Your task to perform on an android device: turn pop-ups on in chrome Image 0: 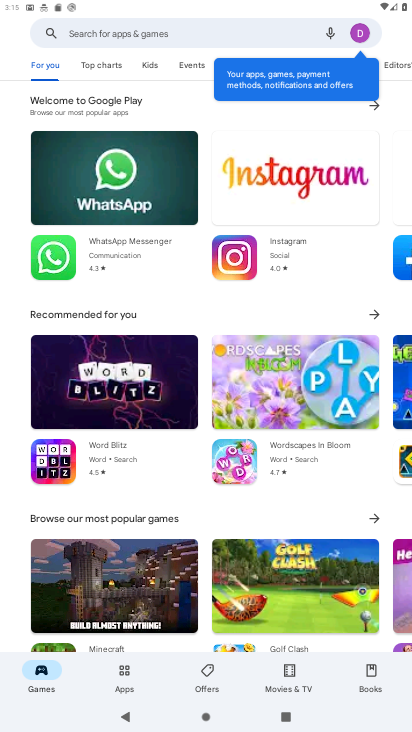
Step 0: press home button
Your task to perform on an android device: turn pop-ups on in chrome Image 1: 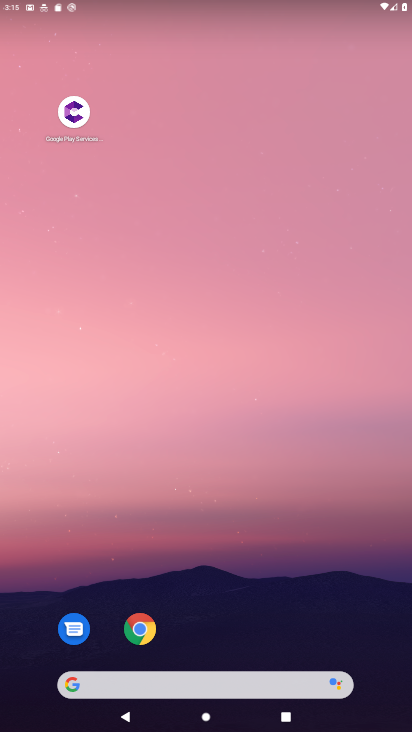
Step 1: click (142, 633)
Your task to perform on an android device: turn pop-ups on in chrome Image 2: 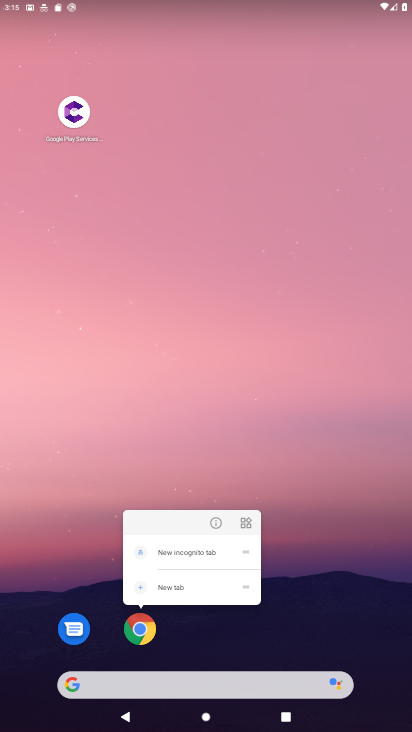
Step 2: click (136, 629)
Your task to perform on an android device: turn pop-ups on in chrome Image 3: 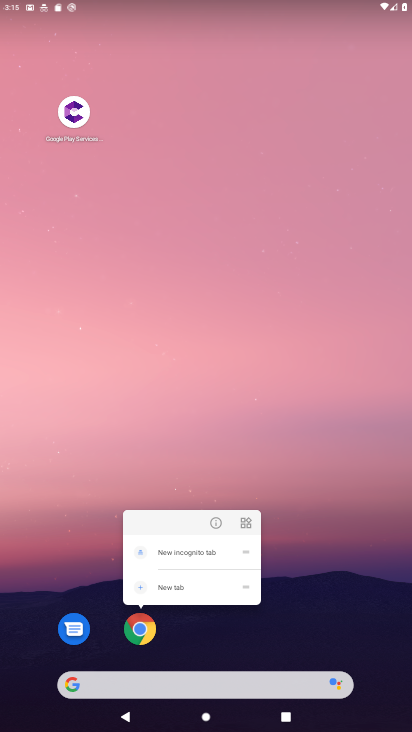
Step 3: click (136, 630)
Your task to perform on an android device: turn pop-ups on in chrome Image 4: 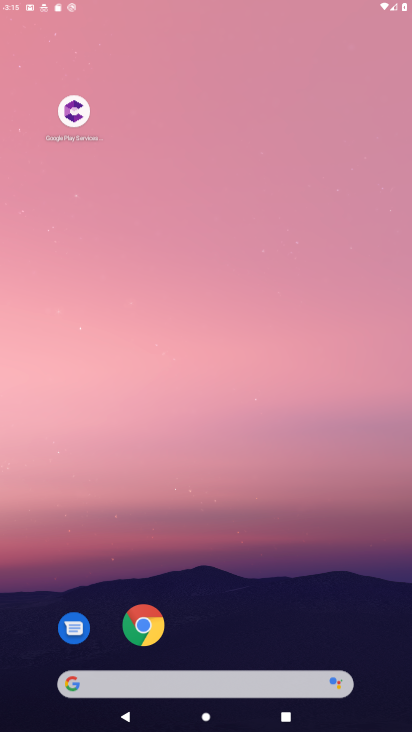
Step 4: click (136, 630)
Your task to perform on an android device: turn pop-ups on in chrome Image 5: 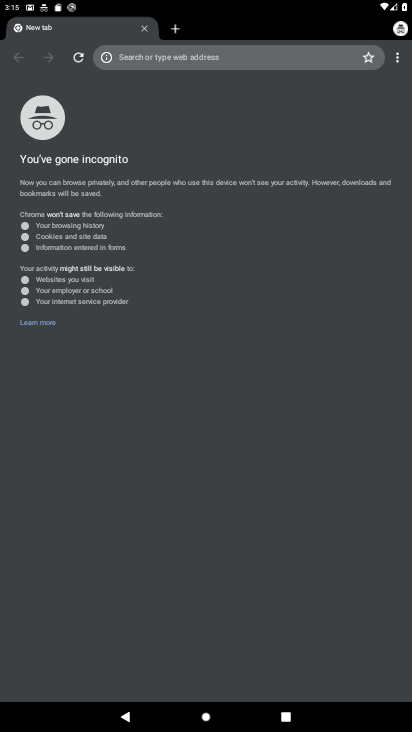
Step 5: click (398, 66)
Your task to perform on an android device: turn pop-ups on in chrome Image 6: 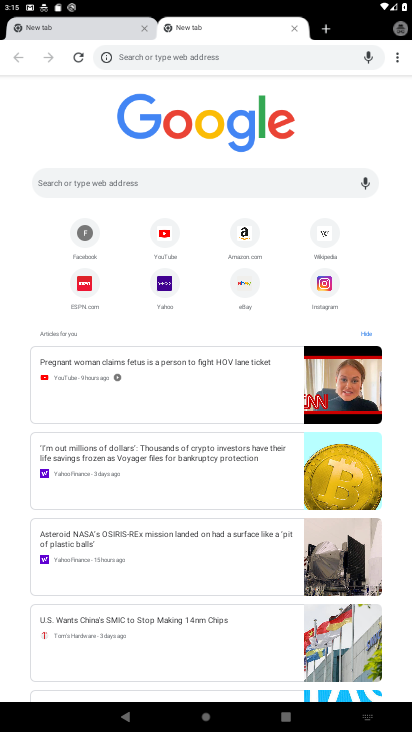
Step 6: click (396, 67)
Your task to perform on an android device: turn pop-ups on in chrome Image 7: 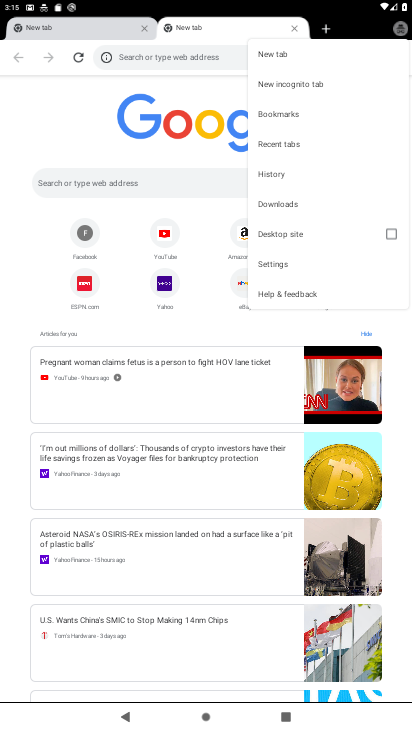
Step 7: click (316, 56)
Your task to perform on an android device: turn pop-ups on in chrome Image 8: 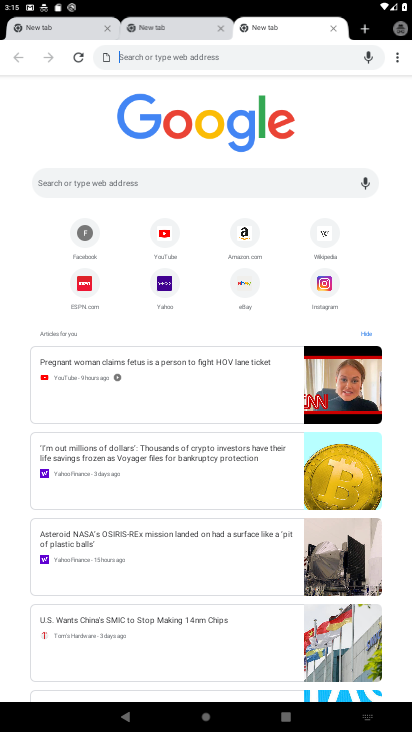
Step 8: drag from (400, 57) to (294, 268)
Your task to perform on an android device: turn pop-ups on in chrome Image 9: 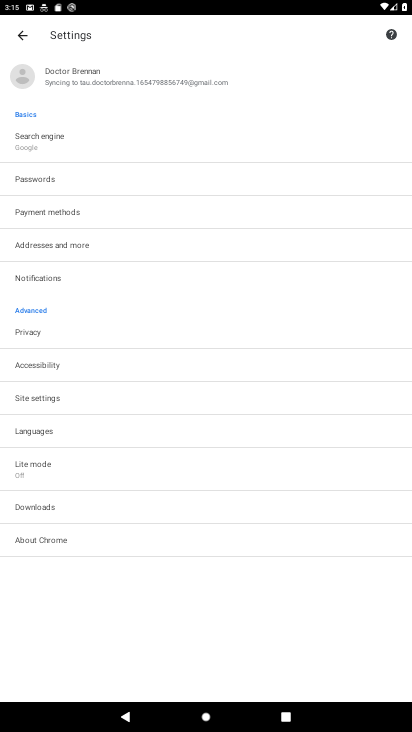
Step 9: click (49, 401)
Your task to perform on an android device: turn pop-ups on in chrome Image 10: 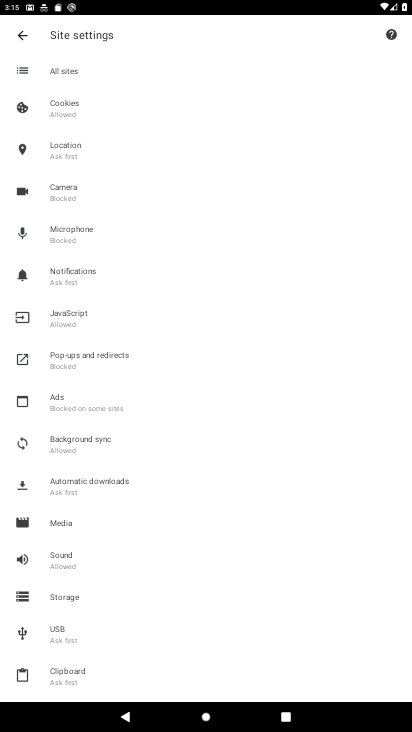
Step 10: click (72, 364)
Your task to perform on an android device: turn pop-ups on in chrome Image 11: 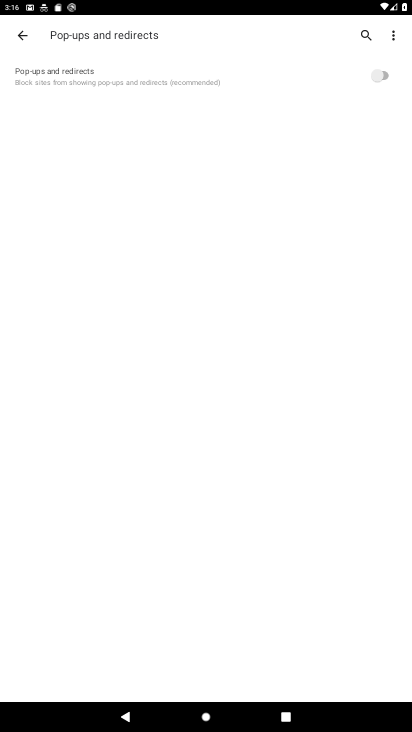
Step 11: click (384, 71)
Your task to perform on an android device: turn pop-ups on in chrome Image 12: 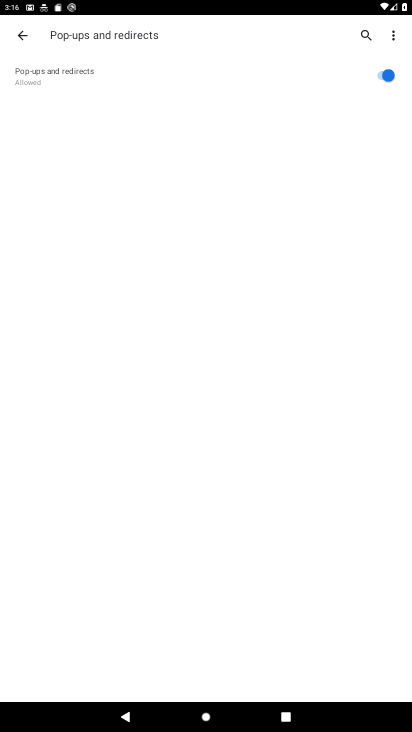
Step 12: task complete